Your task to perform on an android device: toggle pop-ups in chrome Image 0: 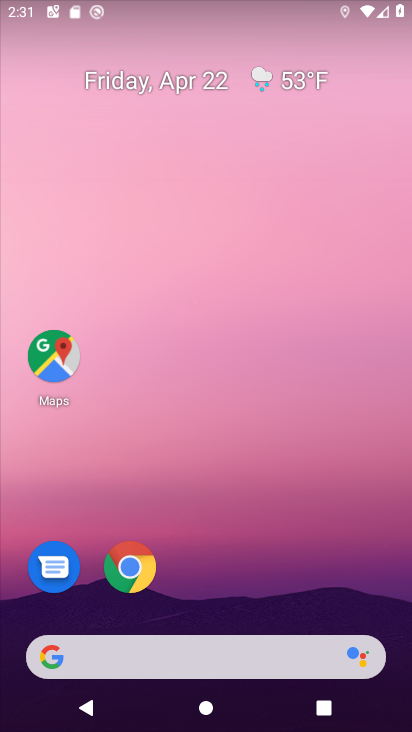
Step 0: click (143, 569)
Your task to perform on an android device: toggle pop-ups in chrome Image 1: 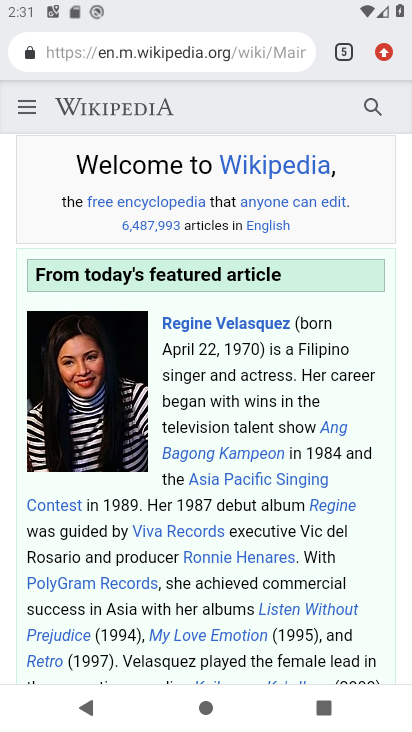
Step 1: drag from (382, 48) to (262, 611)
Your task to perform on an android device: toggle pop-ups in chrome Image 2: 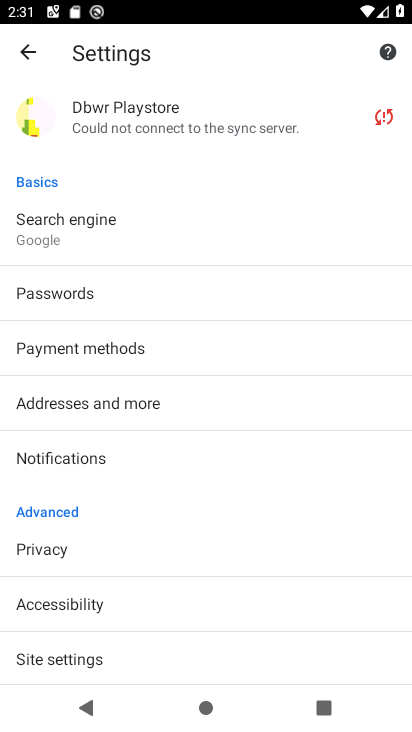
Step 2: click (225, 649)
Your task to perform on an android device: toggle pop-ups in chrome Image 3: 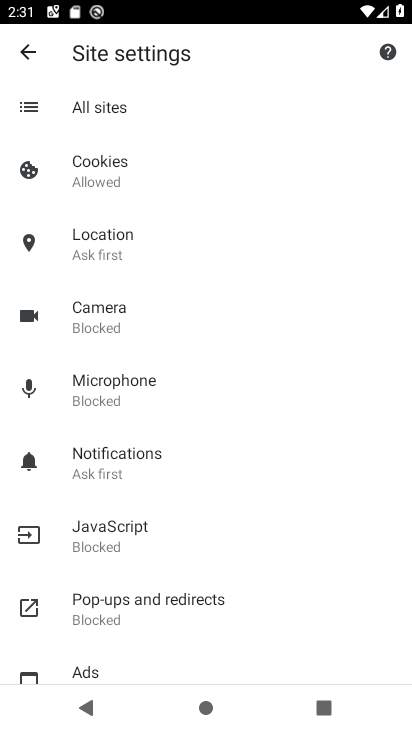
Step 3: click (225, 600)
Your task to perform on an android device: toggle pop-ups in chrome Image 4: 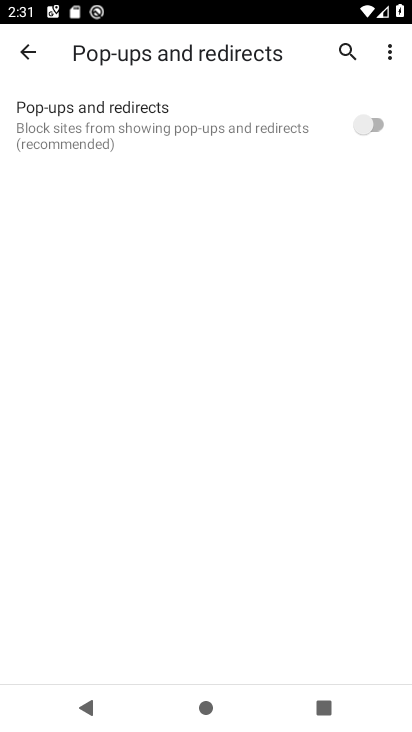
Step 4: click (373, 122)
Your task to perform on an android device: toggle pop-ups in chrome Image 5: 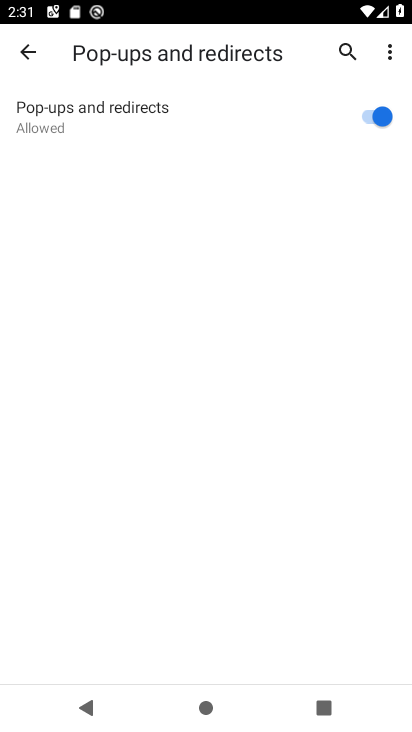
Step 5: task complete